Your task to perform on an android device: What's the weather today? Image 0: 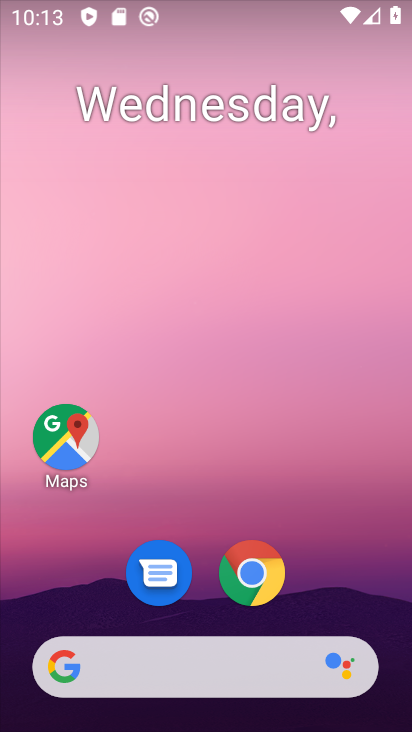
Step 0: click (326, 262)
Your task to perform on an android device: What's the weather today? Image 1: 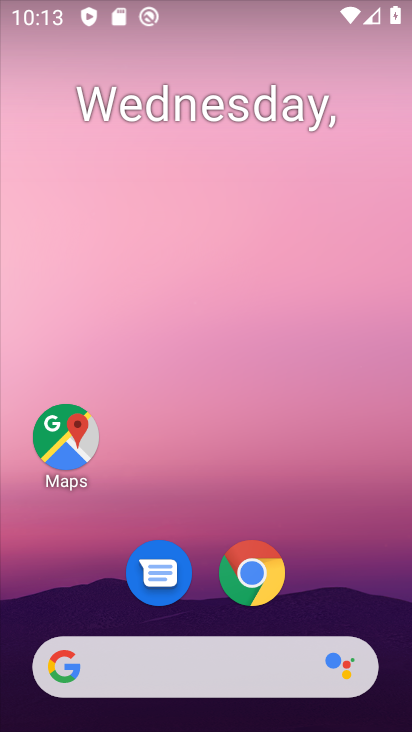
Step 1: drag from (379, 568) to (385, 147)
Your task to perform on an android device: What's the weather today? Image 2: 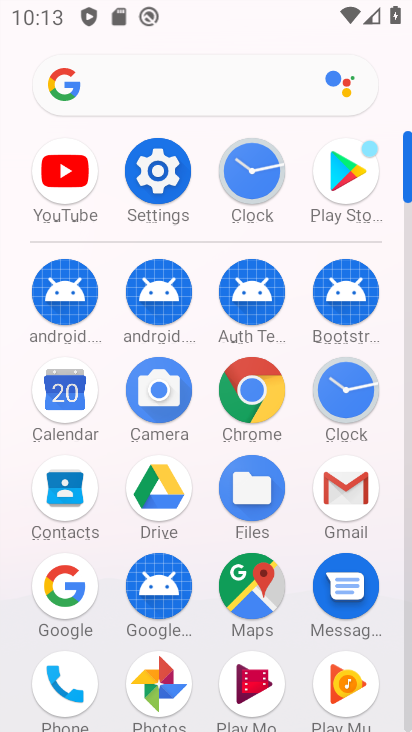
Step 2: click (70, 575)
Your task to perform on an android device: What's the weather today? Image 3: 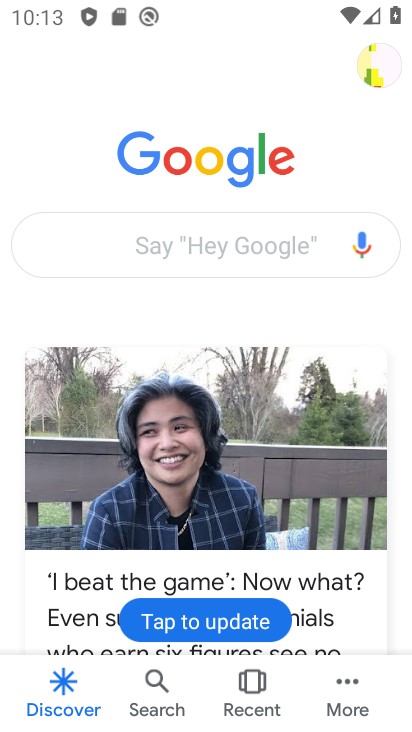
Step 3: task complete